Your task to perform on an android device: Open ESPN.com Image 0: 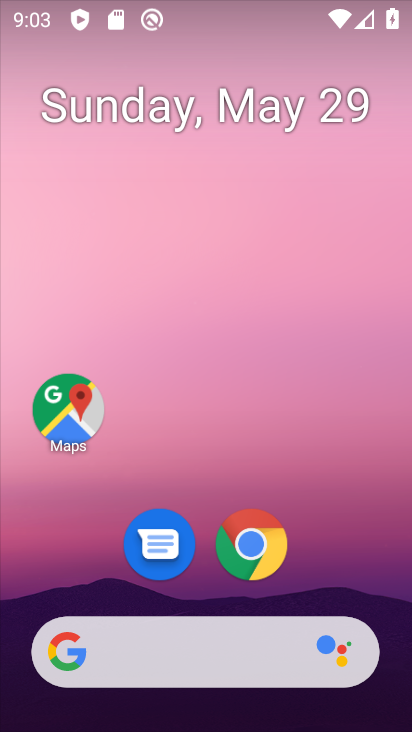
Step 0: drag from (316, 562) to (330, 111)
Your task to perform on an android device: Open ESPN.com Image 1: 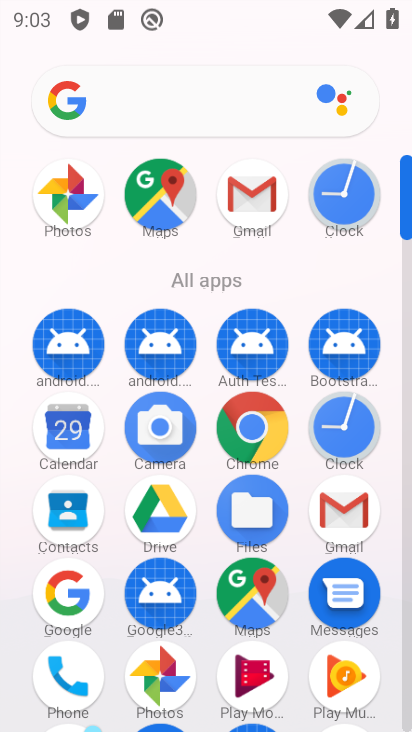
Step 1: click (60, 598)
Your task to perform on an android device: Open ESPN.com Image 2: 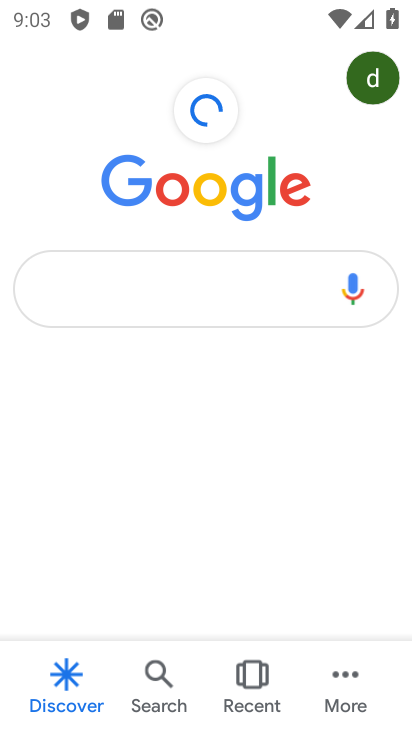
Step 2: click (174, 289)
Your task to perform on an android device: Open ESPN.com Image 3: 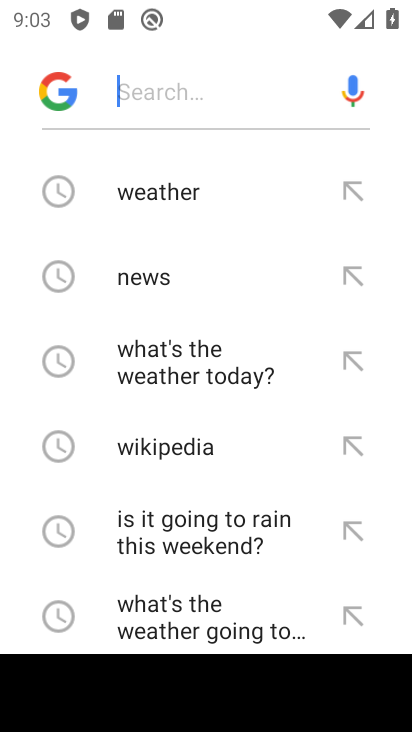
Step 3: type "espn.com"
Your task to perform on an android device: Open ESPN.com Image 4: 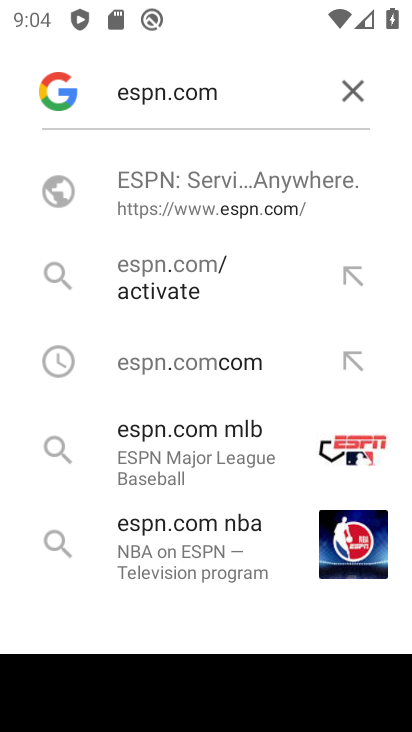
Step 4: click (246, 205)
Your task to perform on an android device: Open ESPN.com Image 5: 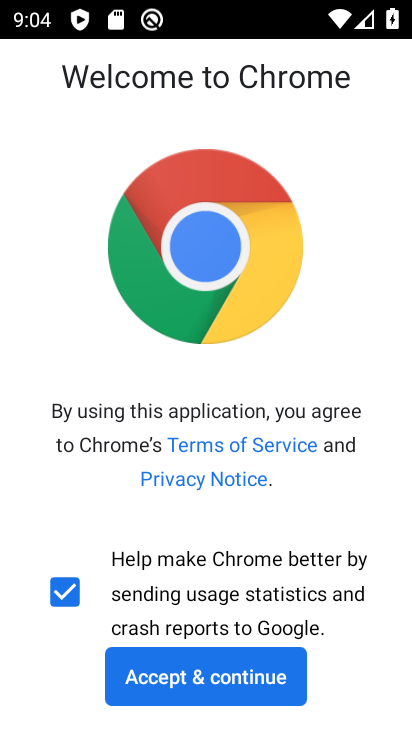
Step 5: click (226, 659)
Your task to perform on an android device: Open ESPN.com Image 6: 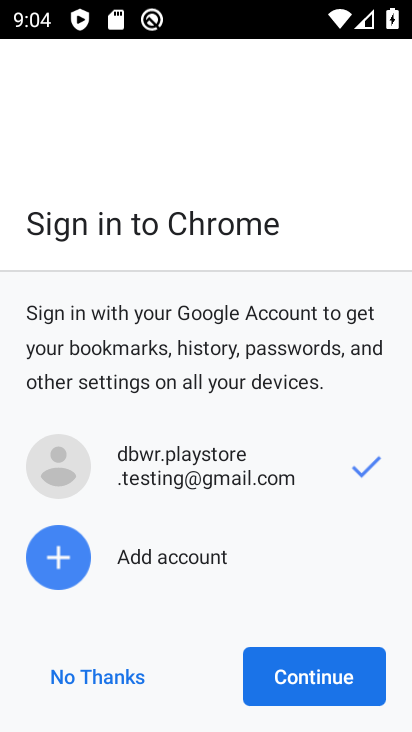
Step 6: click (341, 667)
Your task to perform on an android device: Open ESPN.com Image 7: 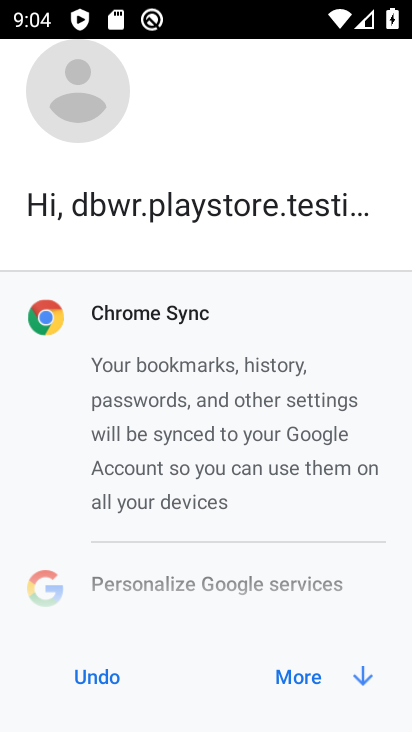
Step 7: click (326, 675)
Your task to perform on an android device: Open ESPN.com Image 8: 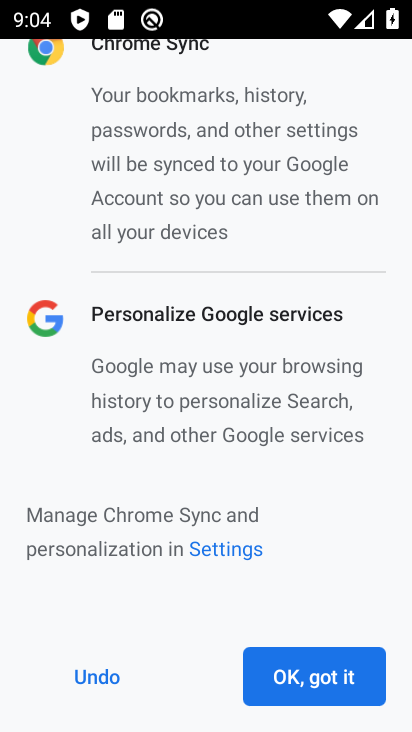
Step 8: click (326, 675)
Your task to perform on an android device: Open ESPN.com Image 9: 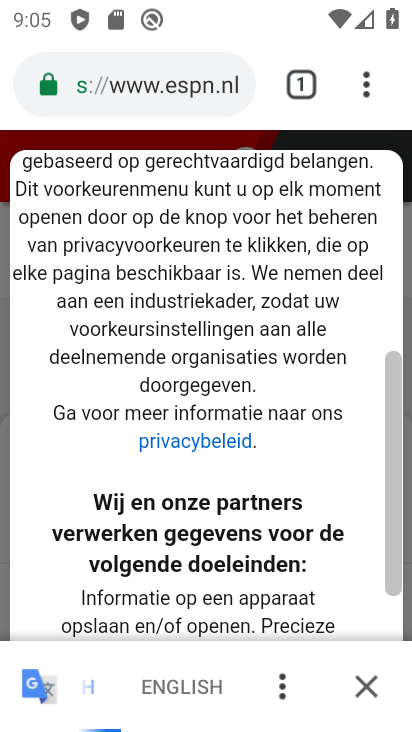
Step 9: task complete